Your task to perform on an android device: turn off wifi Image 0: 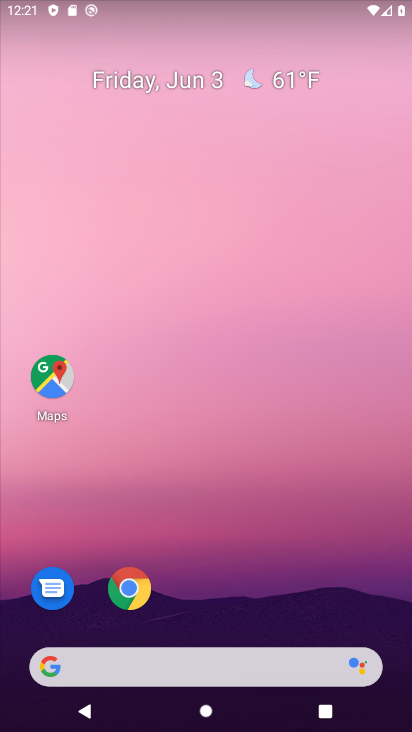
Step 0: drag from (195, 602) to (298, 161)
Your task to perform on an android device: turn off wifi Image 1: 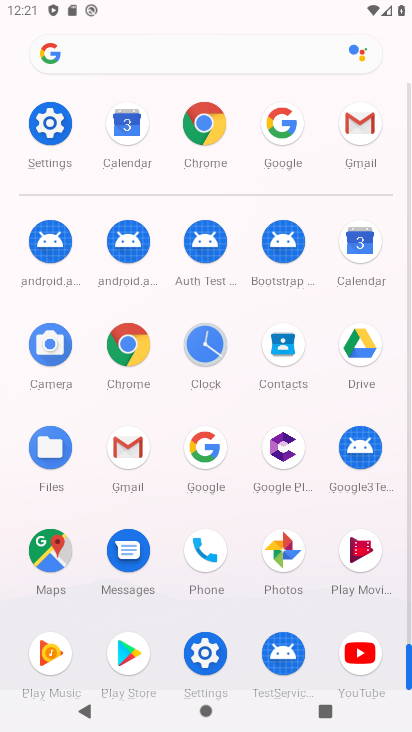
Step 1: click (210, 647)
Your task to perform on an android device: turn off wifi Image 2: 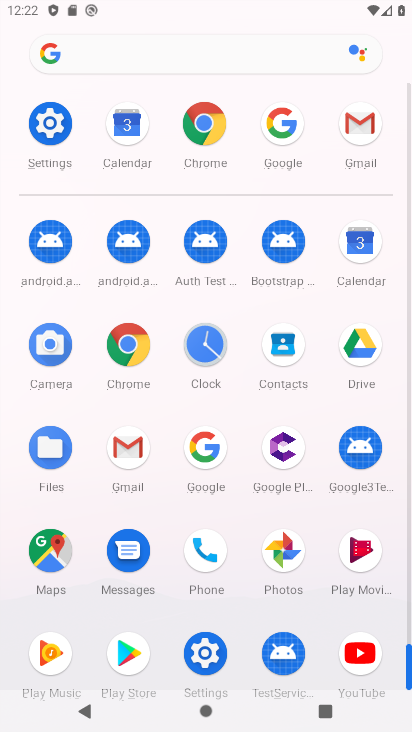
Step 2: click (55, 137)
Your task to perform on an android device: turn off wifi Image 3: 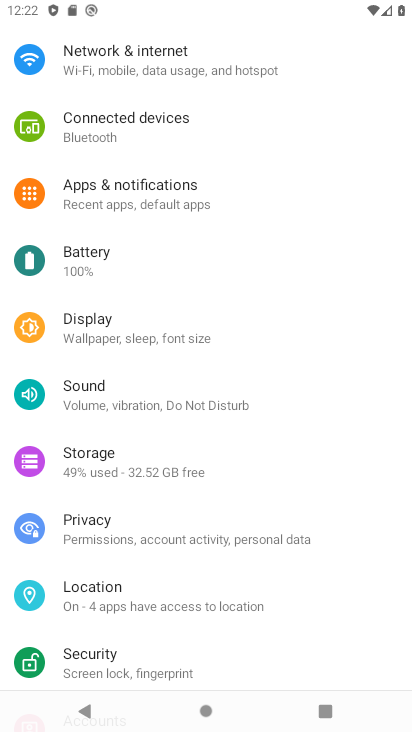
Step 3: drag from (206, 162) to (177, 486)
Your task to perform on an android device: turn off wifi Image 4: 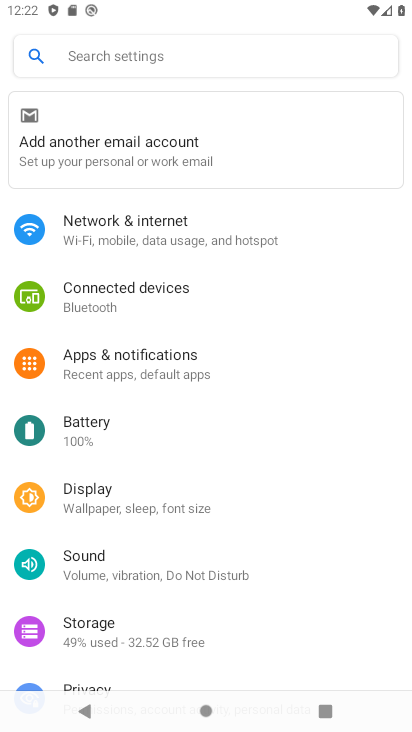
Step 4: click (183, 236)
Your task to perform on an android device: turn off wifi Image 5: 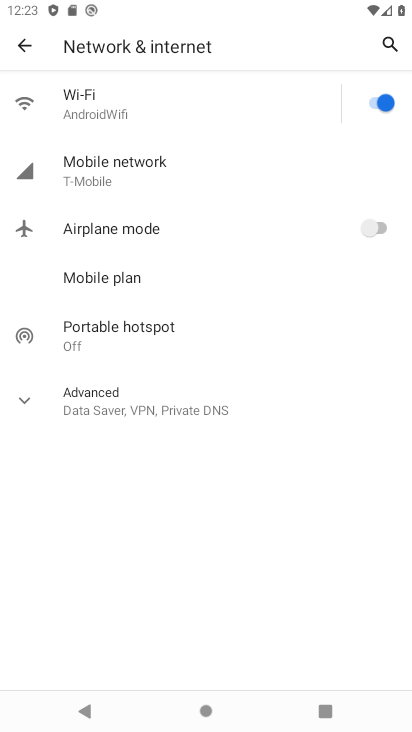
Step 5: click (373, 102)
Your task to perform on an android device: turn off wifi Image 6: 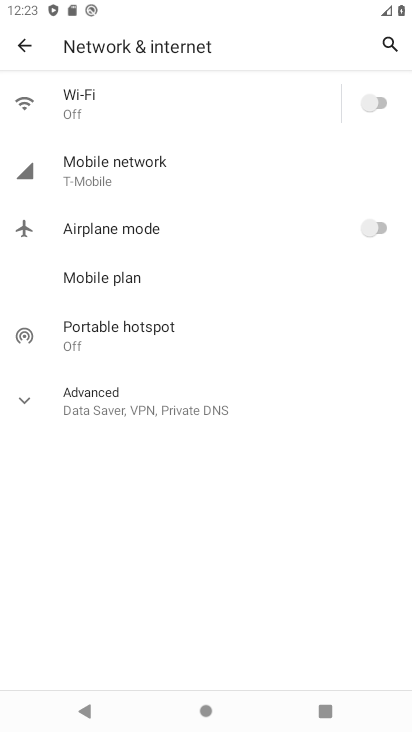
Step 6: task complete